Your task to perform on an android device: Check my email Image 0: 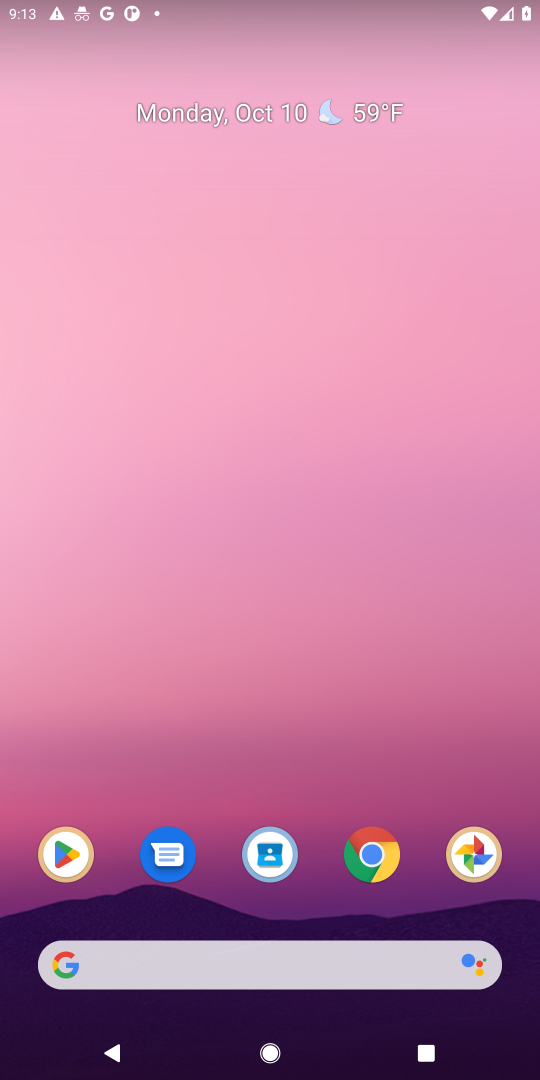
Step 0: drag from (273, 967) to (480, 142)
Your task to perform on an android device: Check my email Image 1: 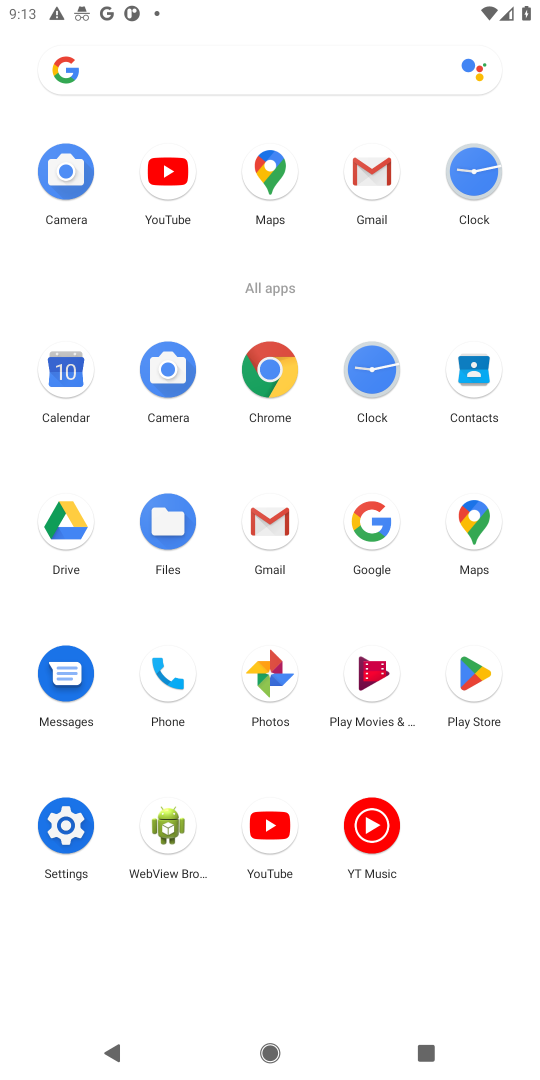
Step 1: click (265, 514)
Your task to perform on an android device: Check my email Image 2: 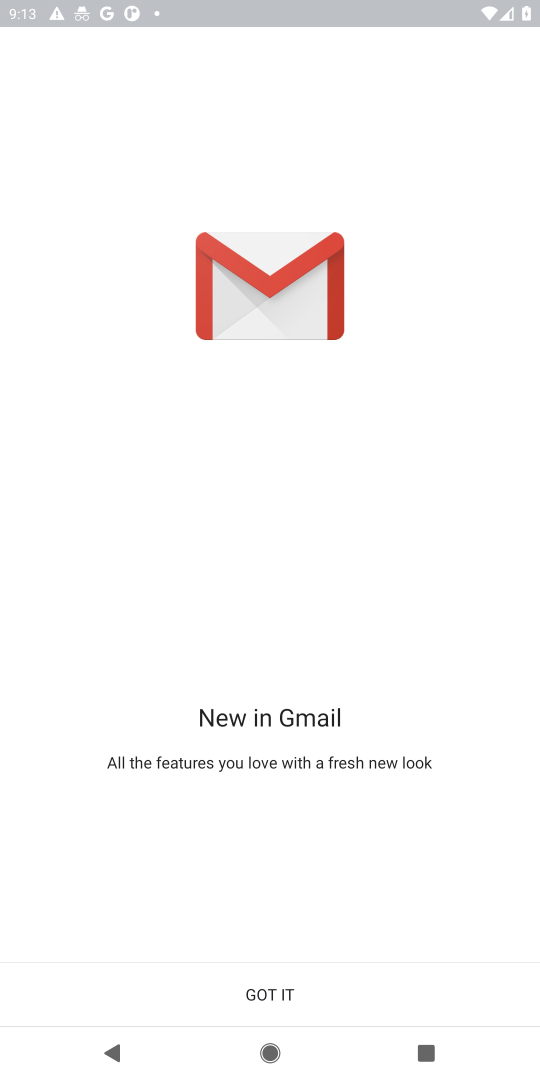
Step 2: click (266, 1001)
Your task to perform on an android device: Check my email Image 3: 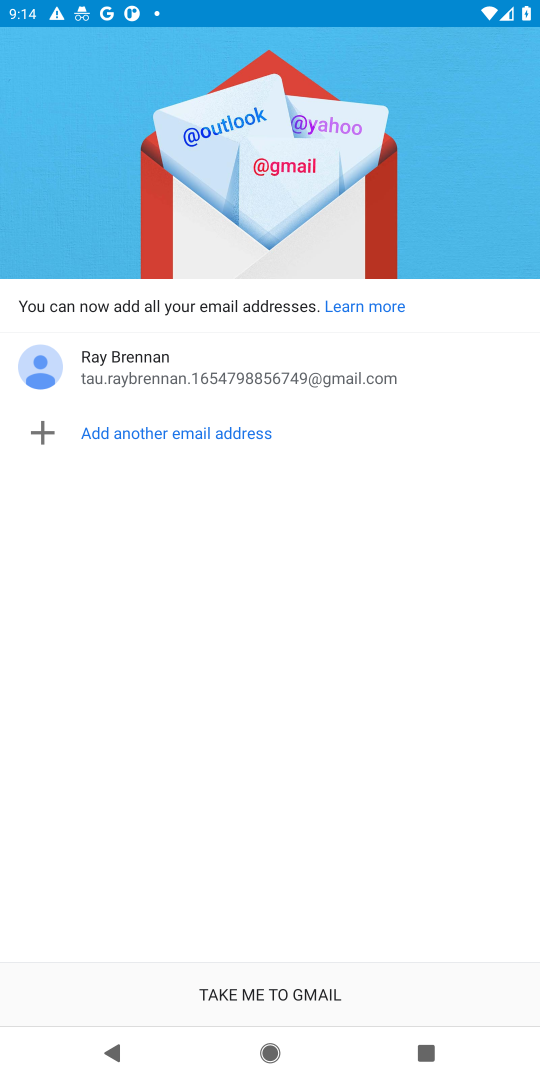
Step 3: click (251, 1005)
Your task to perform on an android device: Check my email Image 4: 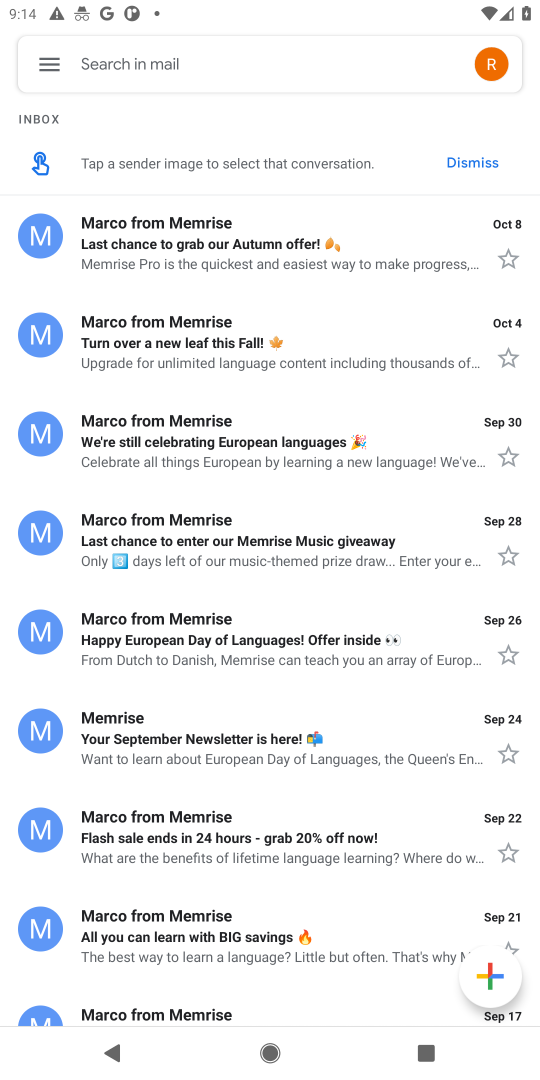
Step 4: task complete